Your task to perform on an android device: set the timer Image 0: 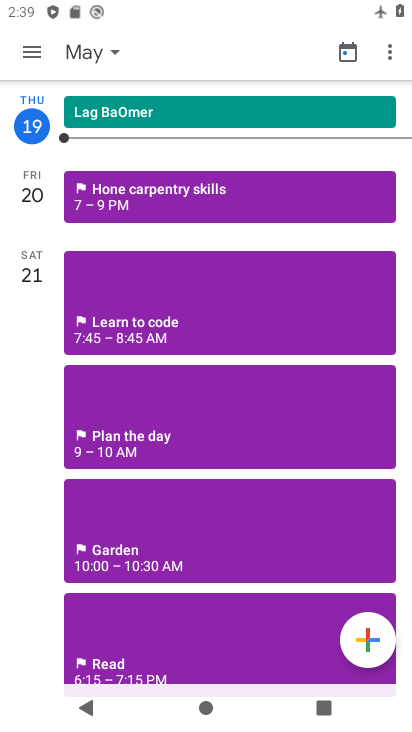
Step 0: press home button
Your task to perform on an android device: set the timer Image 1: 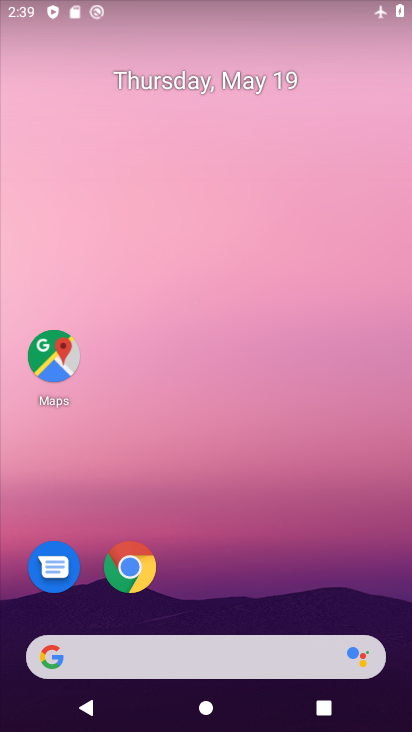
Step 1: drag from (178, 619) to (86, 83)
Your task to perform on an android device: set the timer Image 2: 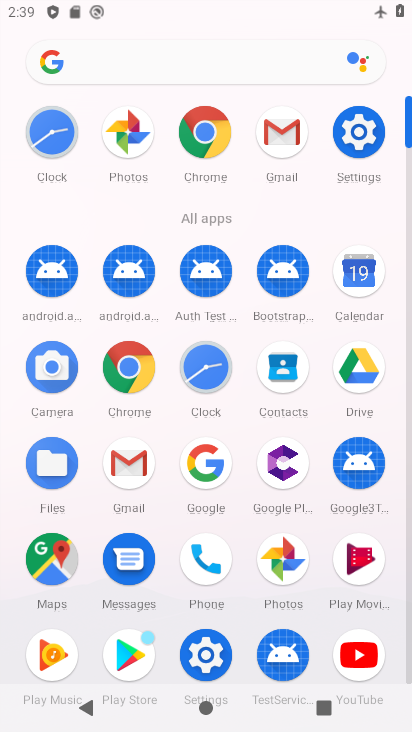
Step 2: click (187, 381)
Your task to perform on an android device: set the timer Image 3: 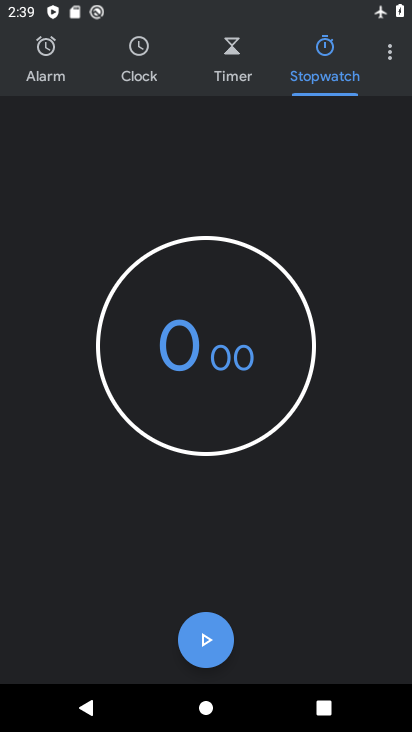
Step 3: click (240, 55)
Your task to perform on an android device: set the timer Image 4: 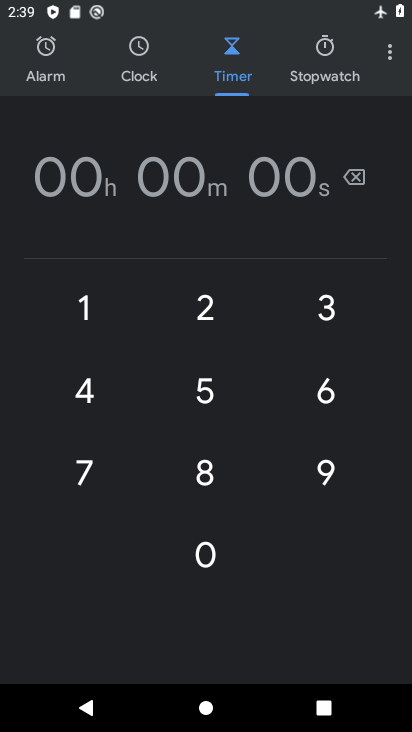
Step 4: click (233, 332)
Your task to perform on an android device: set the timer Image 5: 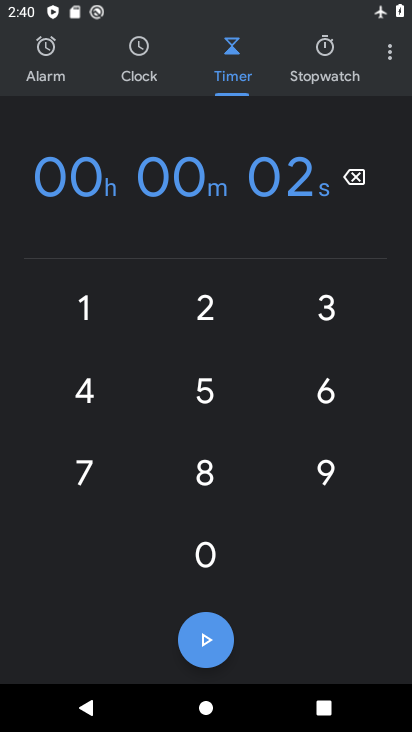
Step 5: click (210, 383)
Your task to perform on an android device: set the timer Image 6: 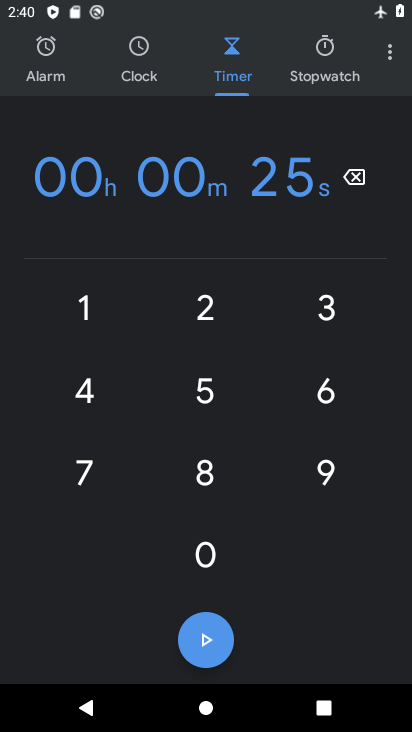
Step 6: click (186, 663)
Your task to perform on an android device: set the timer Image 7: 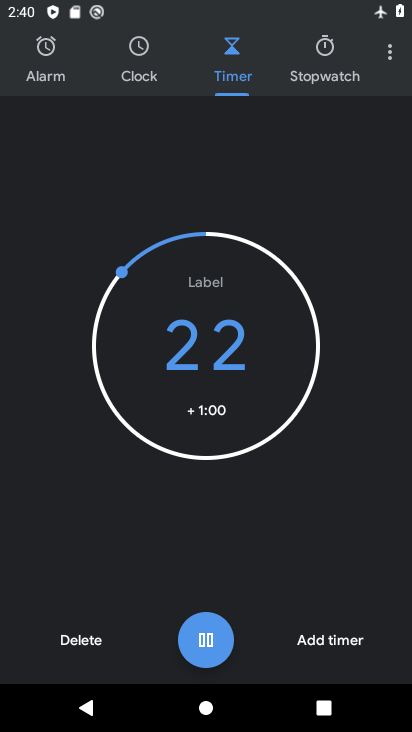
Step 7: click (218, 638)
Your task to perform on an android device: set the timer Image 8: 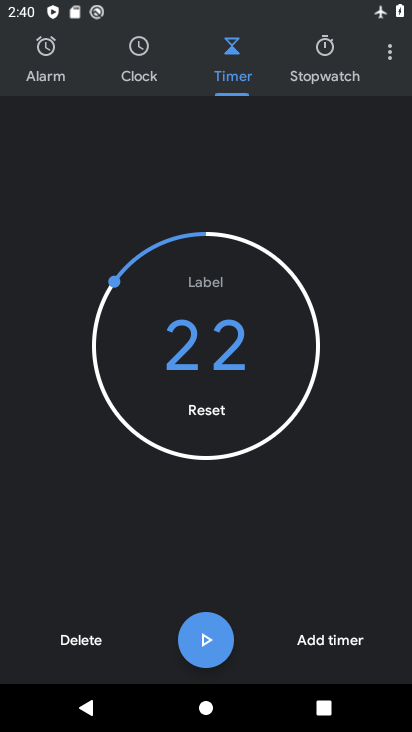
Step 8: task complete